Your task to perform on an android device: Open CNN.com Image 0: 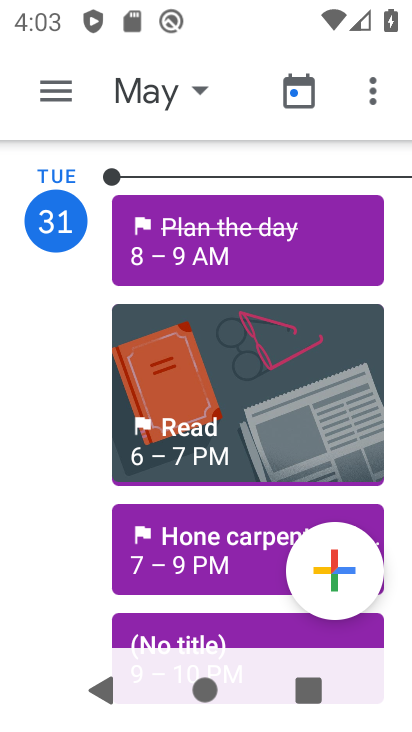
Step 0: press home button
Your task to perform on an android device: Open CNN.com Image 1: 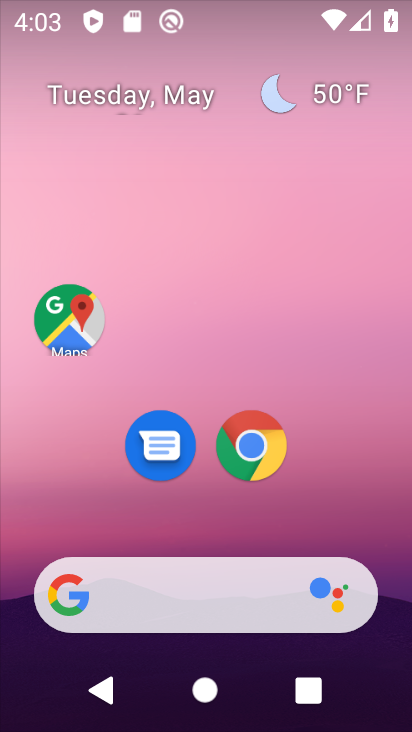
Step 1: drag from (375, 523) to (367, 112)
Your task to perform on an android device: Open CNN.com Image 2: 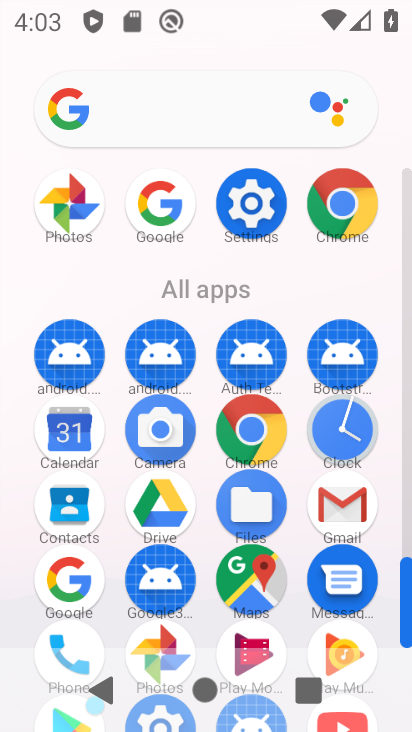
Step 2: click (233, 430)
Your task to perform on an android device: Open CNN.com Image 3: 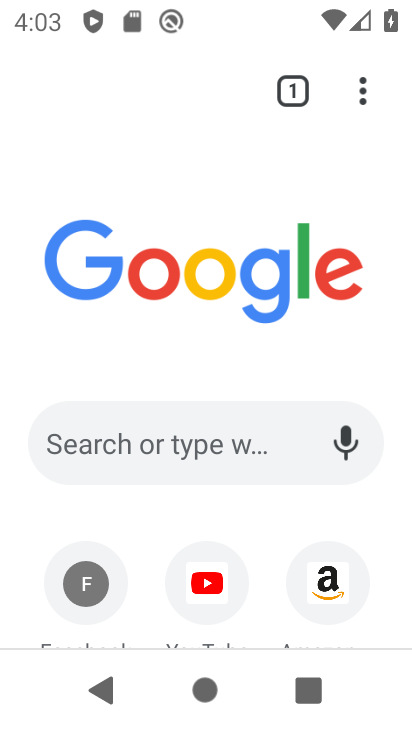
Step 3: click (191, 455)
Your task to perform on an android device: Open CNN.com Image 4: 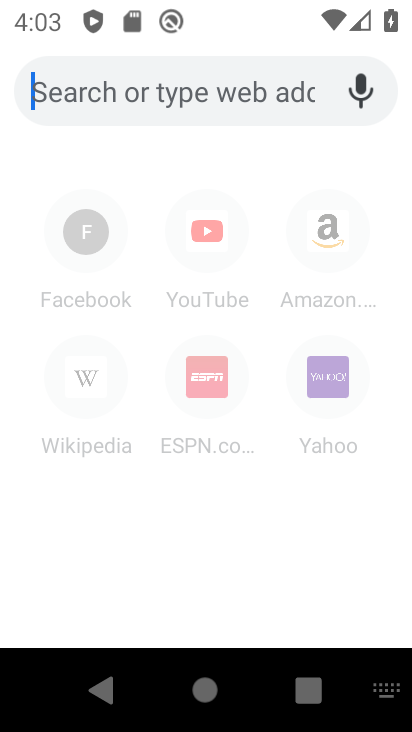
Step 4: click (200, 95)
Your task to perform on an android device: Open CNN.com Image 5: 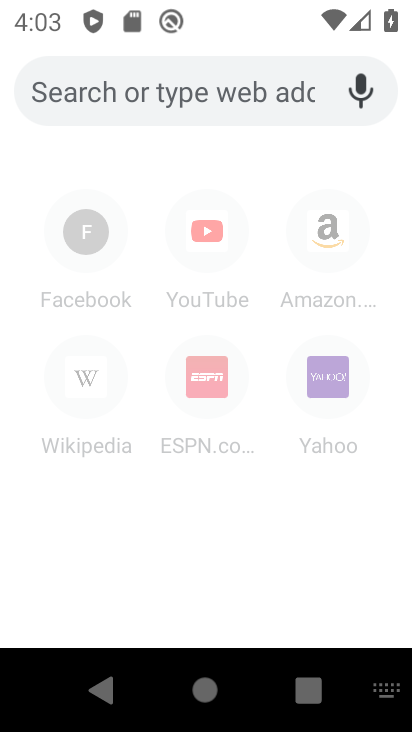
Step 5: type "cnn.com"
Your task to perform on an android device: Open CNN.com Image 6: 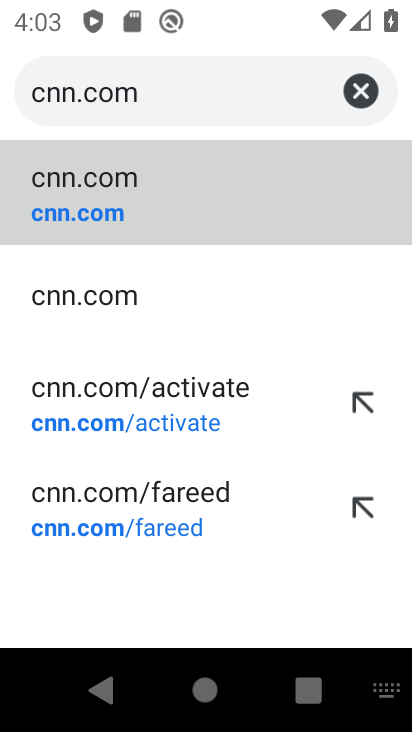
Step 6: click (246, 190)
Your task to perform on an android device: Open CNN.com Image 7: 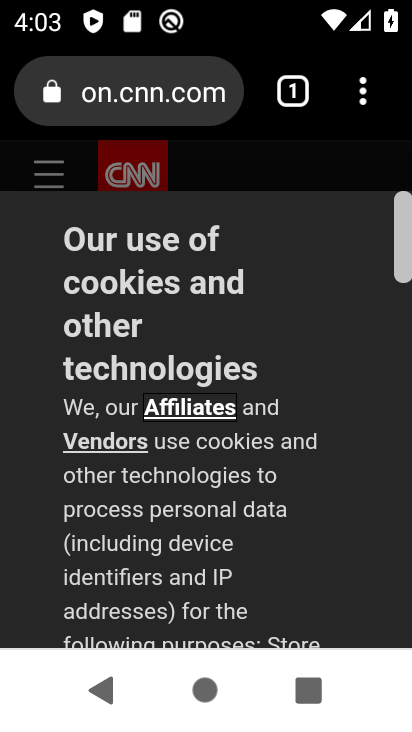
Step 7: task complete